Your task to perform on an android device: remove spam from my inbox in the gmail app Image 0: 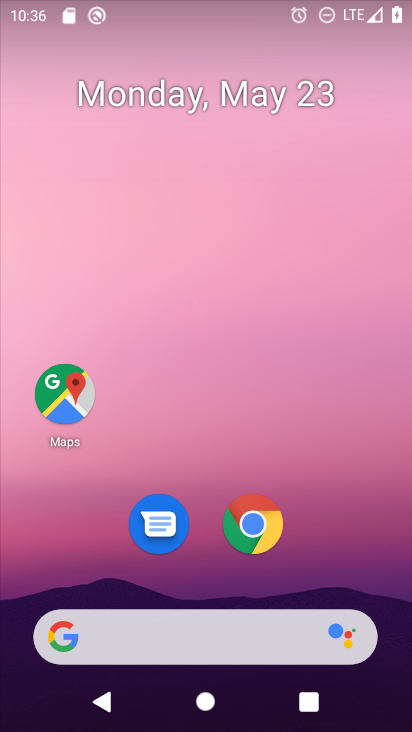
Step 0: press home button
Your task to perform on an android device: remove spam from my inbox in the gmail app Image 1: 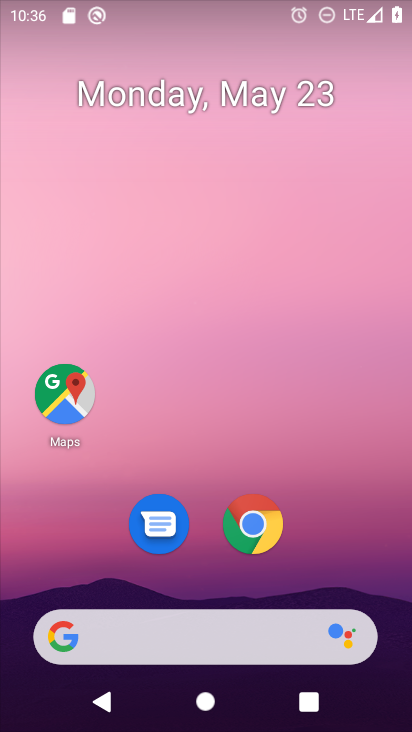
Step 1: drag from (198, 445) to (174, 45)
Your task to perform on an android device: remove spam from my inbox in the gmail app Image 2: 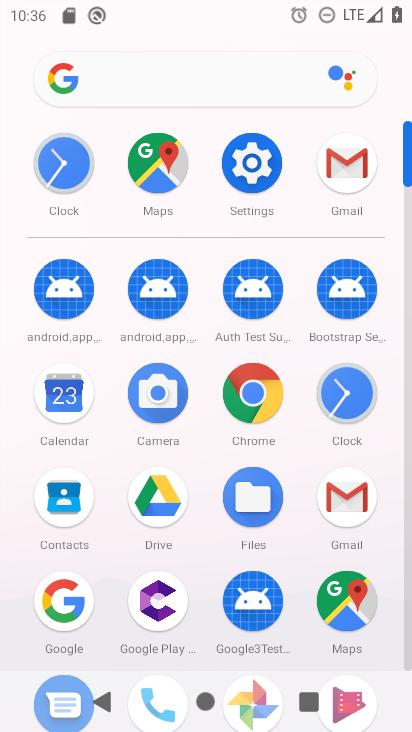
Step 2: click (343, 160)
Your task to perform on an android device: remove spam from my inbox in the gmail app Image 3: 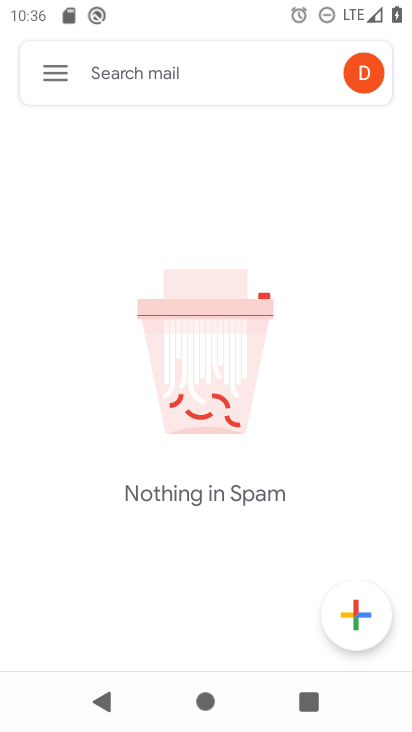
Step 3: click (63, 76)
Your task to perform on an android device: remove spam from my inbox in the gmail app Image 4: 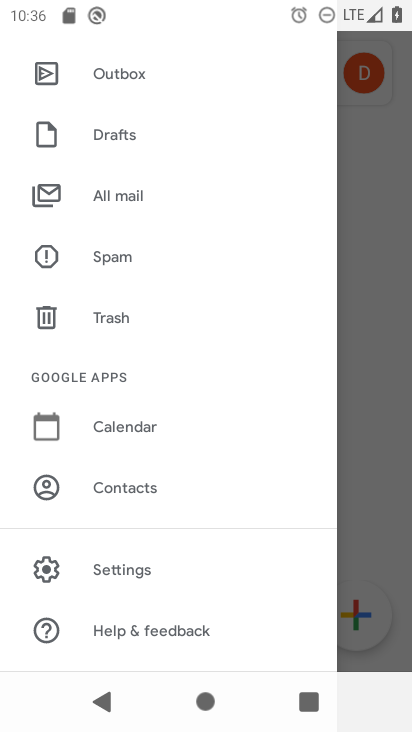
Step 4: click (117, 243)
Your task to perform on an android device: remove spam from my inbox in the gmail app Image 5: 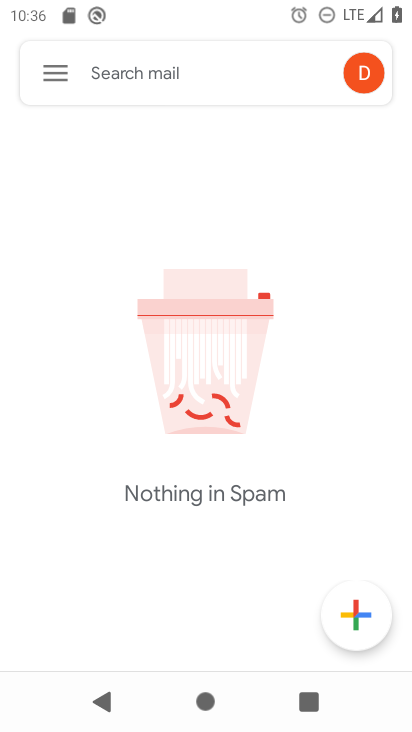
Step 5: task complete